Your task to perform on an android device: toggle location history Image 0: 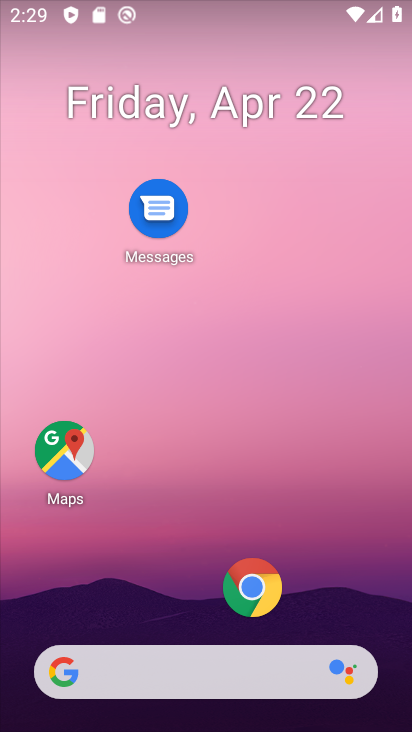
Step 0: drag from (202, 542) to (202, 145)
Your task to perform on an android device: toggle location history Image 1: 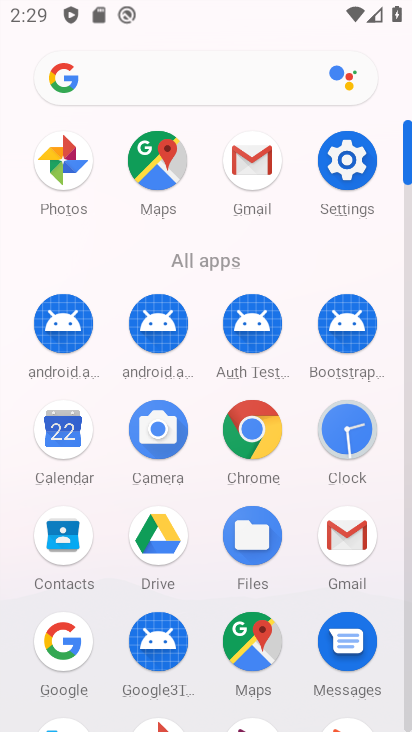
Step 1: click (335, 157)
Your task to perform on an android device: toggle location history Image 2: 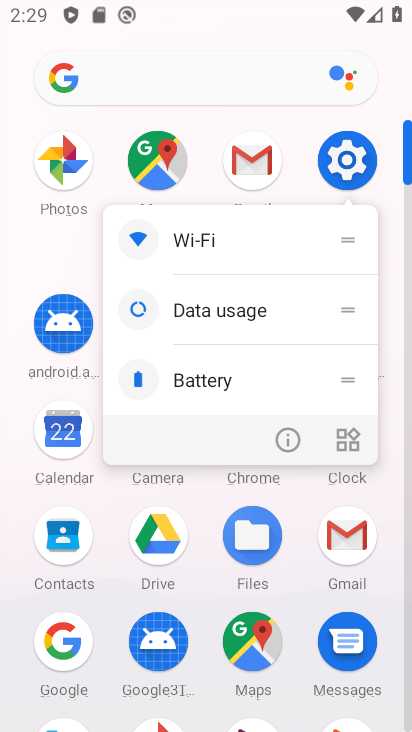
Step 2: click (347, 166)
Your task to perform on an android device: toggle location history Image 3: 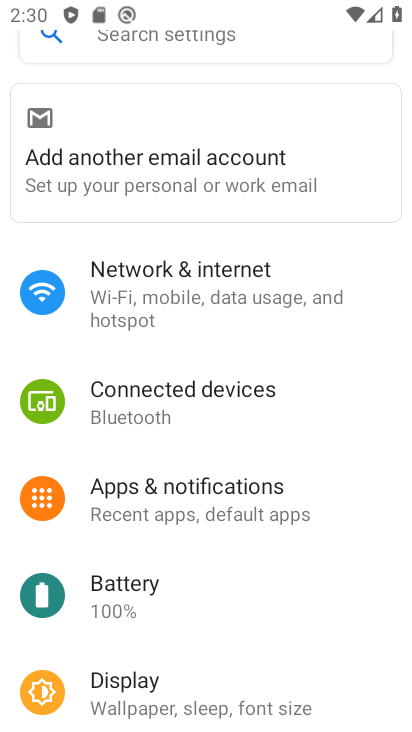
Step 3: drag from (231, 590) to (241, 331)
Your task to perform on an android device: toggle location history Image 4: 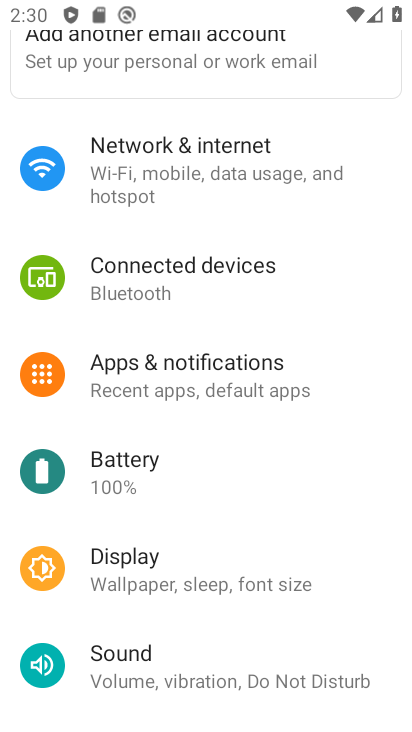
Step 4: drag from (244, 569) to (256, 325)
Your task to perform on an android device: toggle location history Image 5: 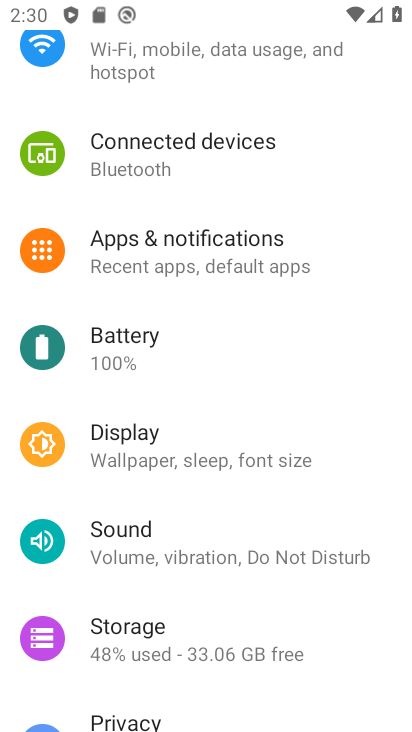
Step 5: drag from (241, 590) to (252, 297)
Your task to perform on an android device: toggle location history Image 6: 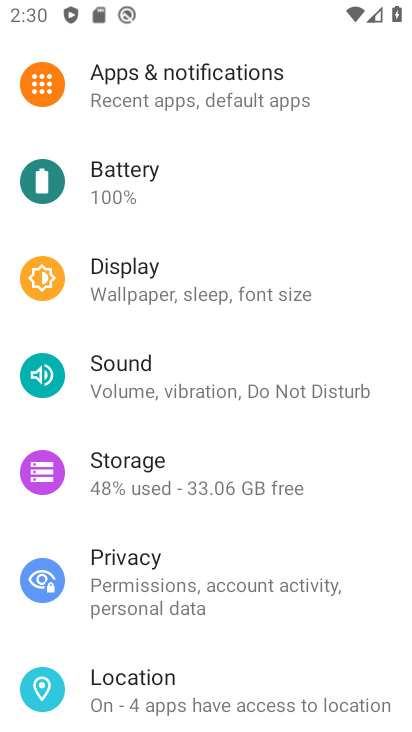
Step 6: drag from (236, 574) to (250, 305)
Your task to perform on an android device: toggle location history Image 7: 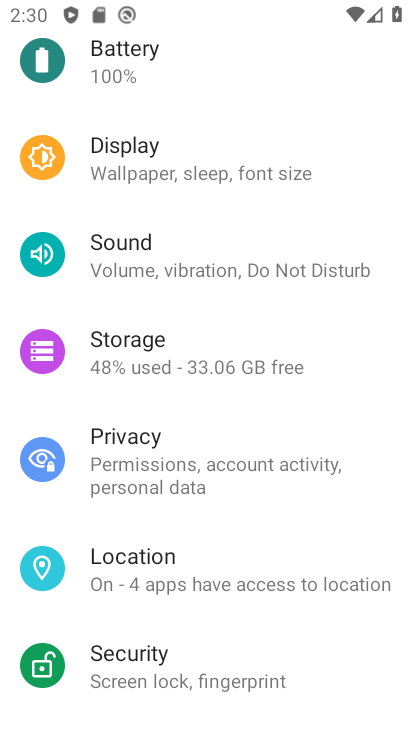
Step 7: click (179, 556)
Your task to perform on an android device: toggle location history Image 8: 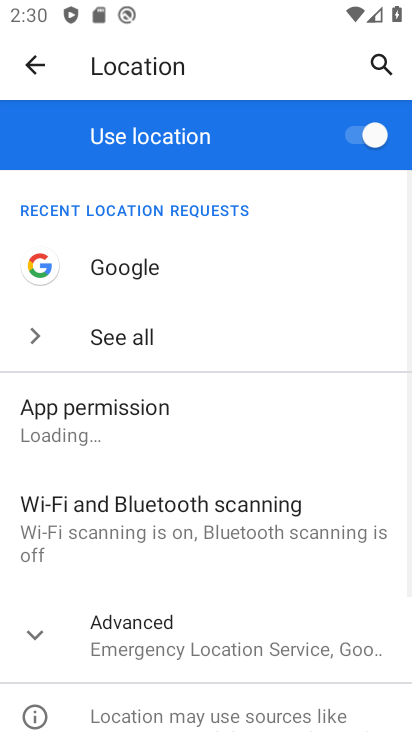
Step 8: drag from (230, 520) to (266, 274)
Your task to perform on an android device: toggle location history Image 9: 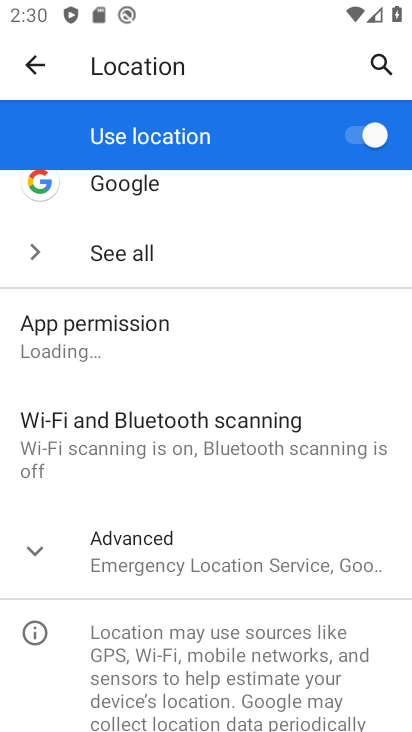
Step 9: click (186, 551)
Your task to perform on an android device: toggle location history Image 10: 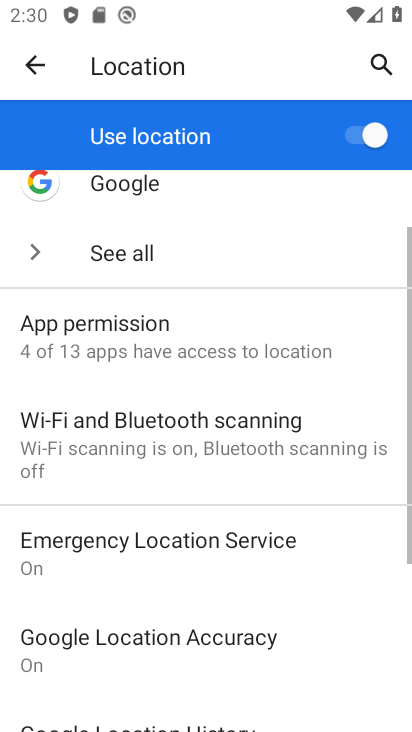
Step 10: drag from (268, 627) to (288, 324)
Your task to perform on an android device: toggle location history Image 11: 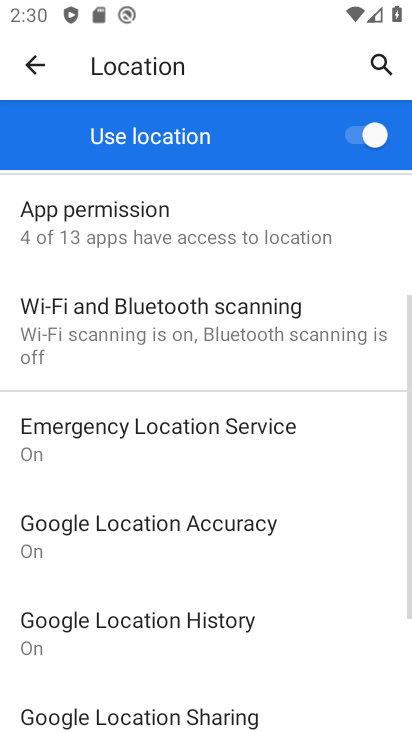
Step 11: click (236, 620)
Your task to perform on an android device: toggle location history Image 12: 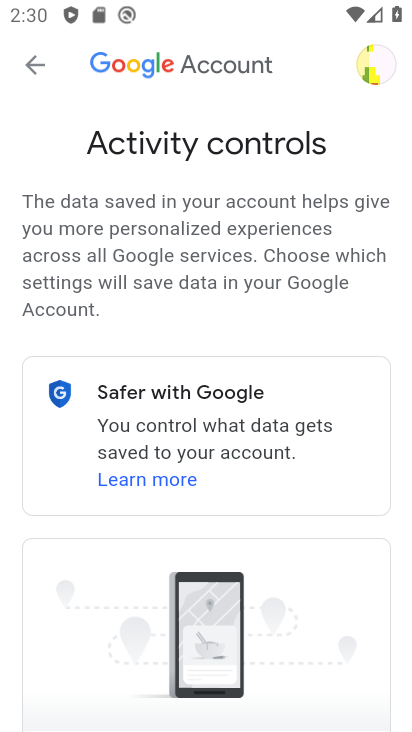
Step 12: drag from (272, 610) to (309, 312)
Your task to perform on an android device: toggle location history Image 13: 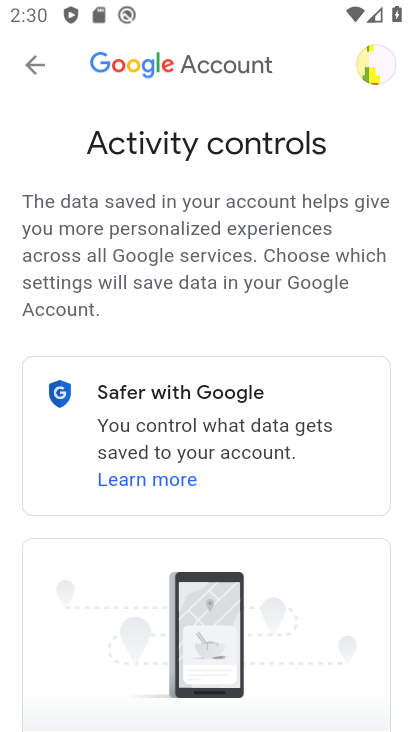
Step 13: drag from (302, 554) to (323, 307)
Your task to perform on an android device: toggle location history Image 14: 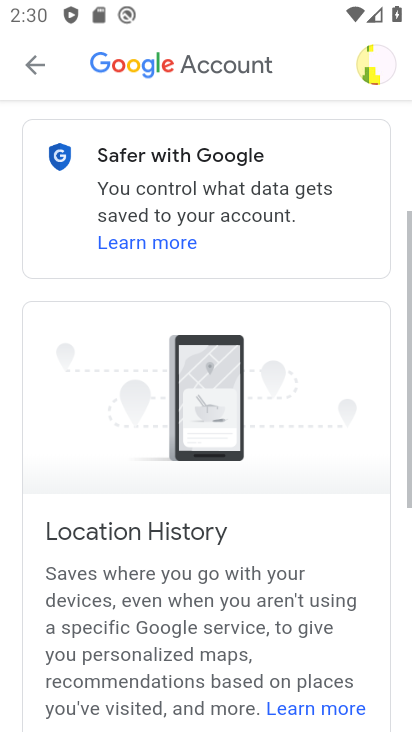
Step 14: drag from (291, 581) to (301, 297)
Your task to perform on an android device: toggle location history Image 15: 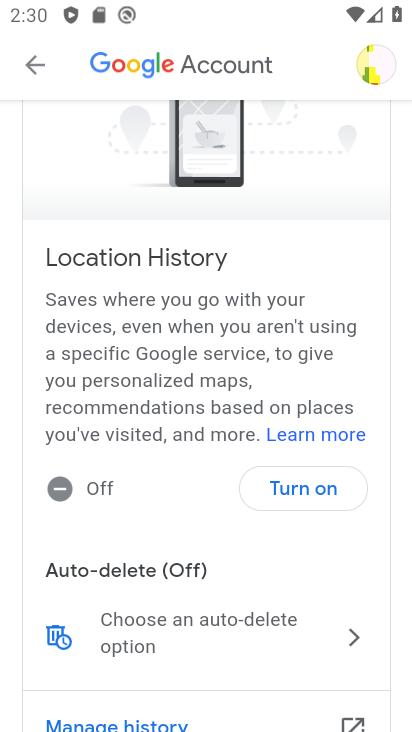
Step 15: click (302, 481)
Your task to perform on an android device: toggle location history Image 16: 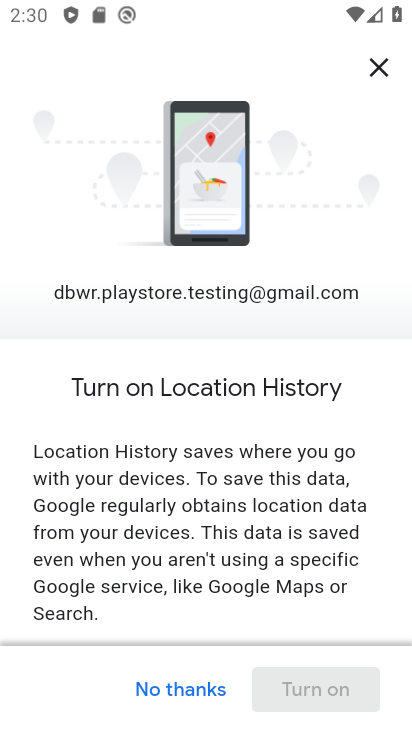
Step 16: drag from (281, 558) to (282, 258)
Your task to perform on an android device: toggle location history Image 17: 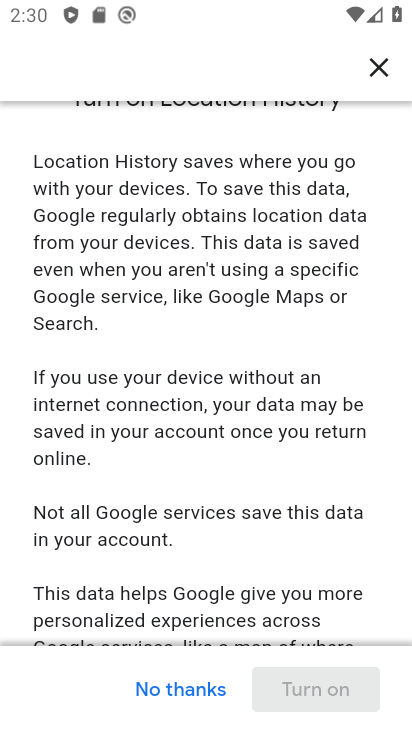
Step 17: drag from (284, 527) to (289, 230)
Your task to perform on an android device: toggle location history Image 18: 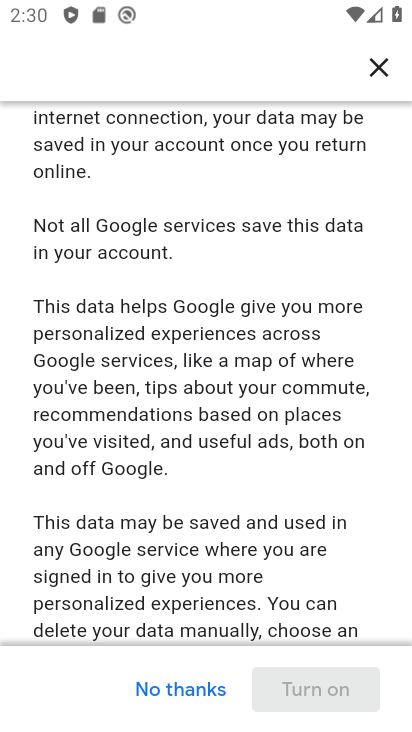
Step 18: drag from (299, 619) to (302, 212)
Your task to perform on an android device: toggle location history Image 19: 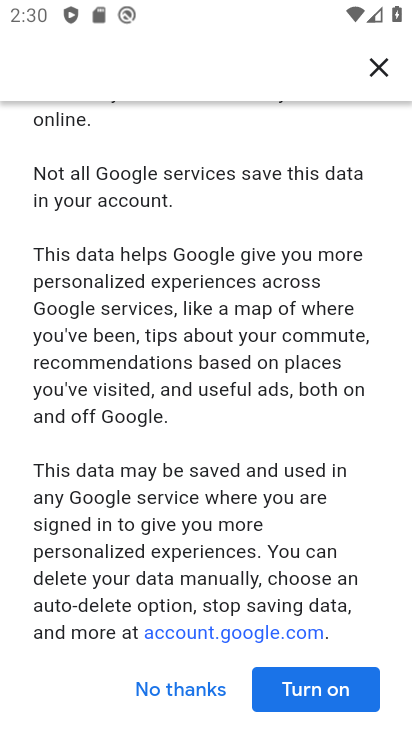
Step 19: click (326, 693)
Your task to perform on an android device: toggle location history Image 20: 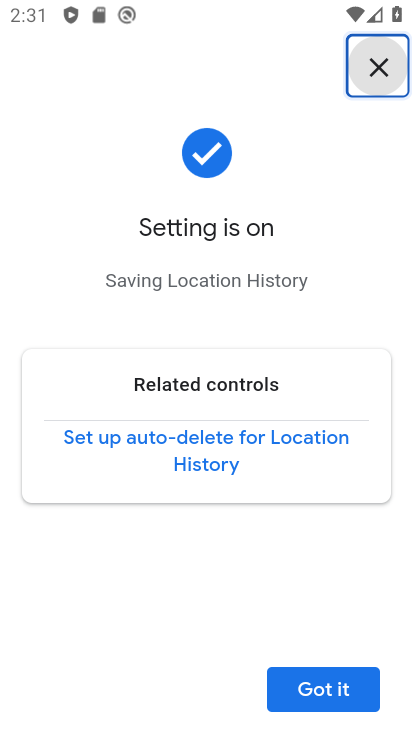
Step 20: task complete